Your task to perform on an android device: check out phone information Image 0: 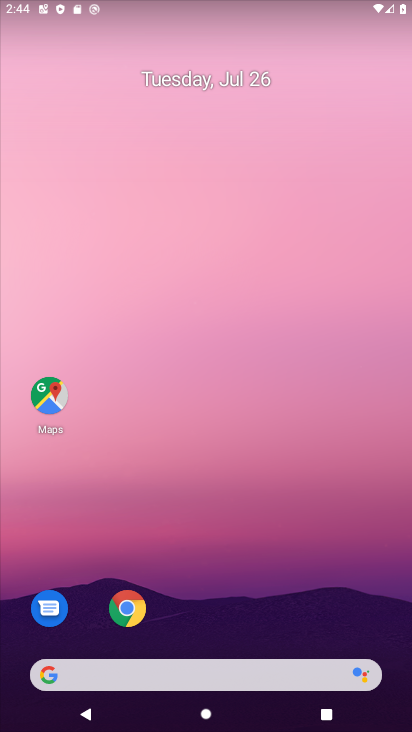
Step 0: drag from (212, 648) to (226, 70)
Your task to perform on an android device: check out phone information Image 1: 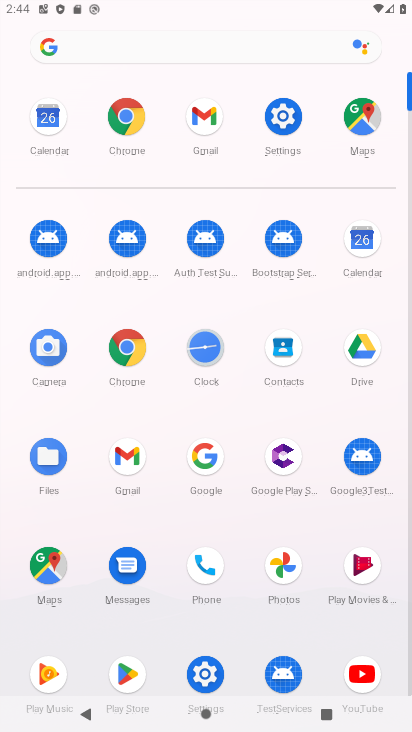
Step 1: click (281, 124)
Your task to perform on an android device: check out phone information Image 2: 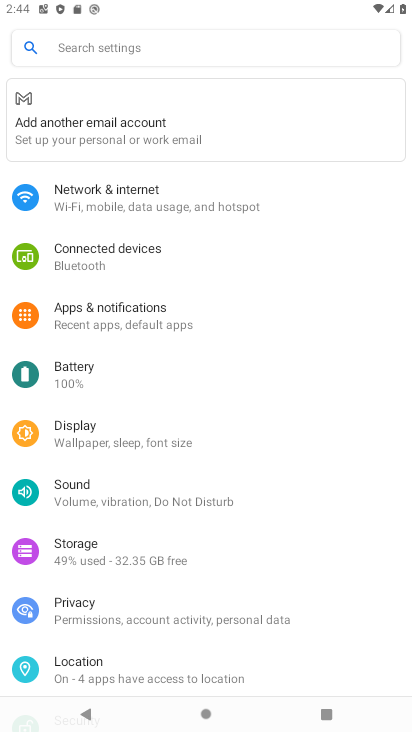
Step 2: task complete